Your task to perform on an android device: When is my next appointment? Image 0: 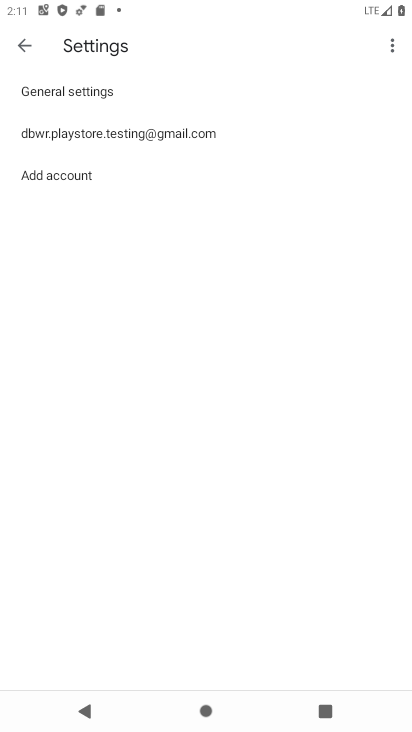
Step 0: press home button
Your task to perform on an android device: When is my next appointment? Image 1: 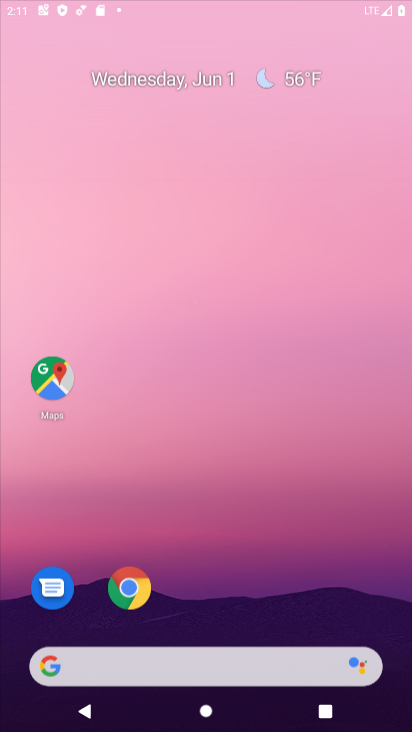
Step 1: drag from (221, 589) to (204, 0)
Your task to perform on an android device: When is my next appointment? Image 2: 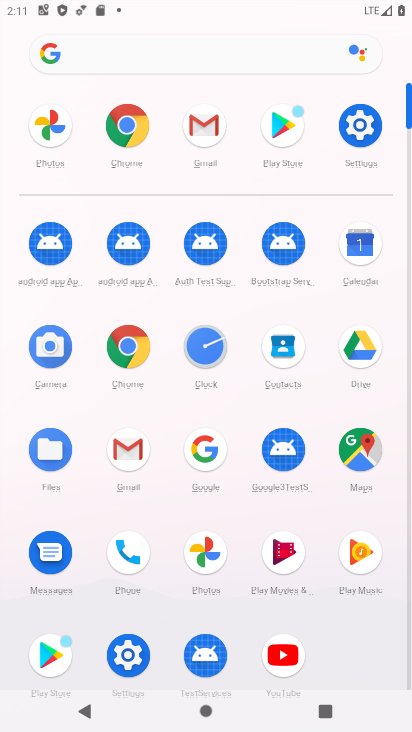
Step 2: click (367, 241)
Your task to perform on an android device: When is my next appointment? Image 3: 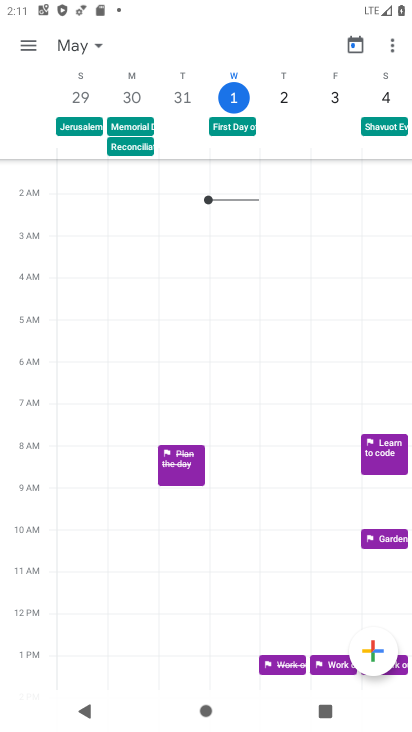
Step 3: task complete